Your task to perform on an android device: turn notification dots on Image 0: 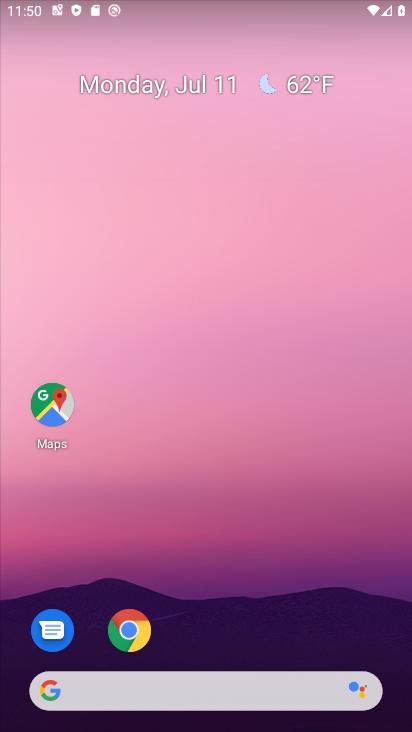
Step 0: drag from (120, 674) to (270, 0)
Your task to perform on an android device: turn notification dots on Image 1: 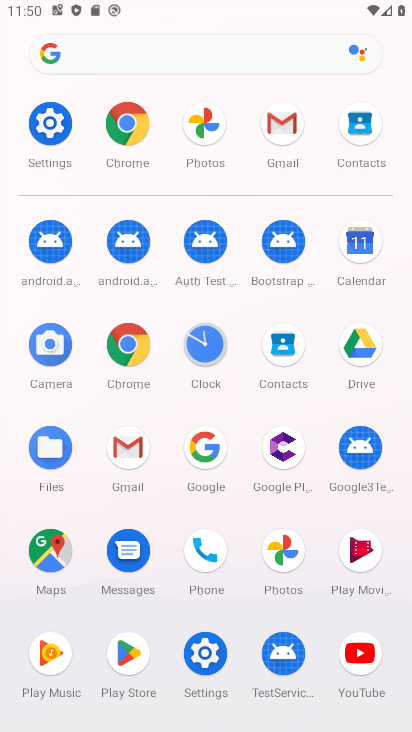
Step 1: click (55, 116)
Your task to perform on an android device: turn notification dots on Image 2: 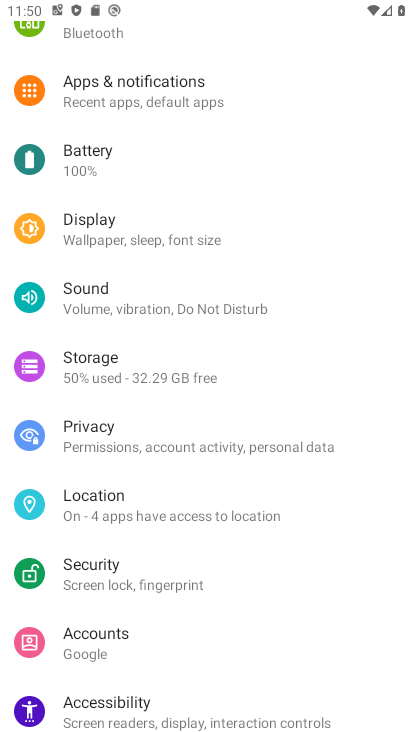
Step 2: click (135, 98)
Your task to perform on an android device: turn notification dots on Image 3: 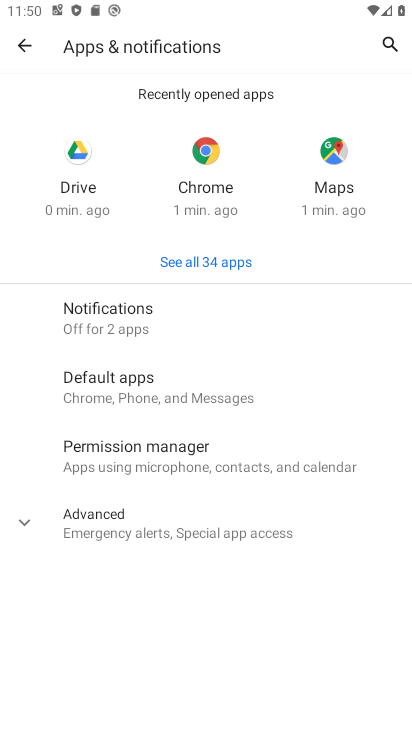
Step 3: click (155, 319)
Your task to perform on an android device: turn notification dots on Image 4: 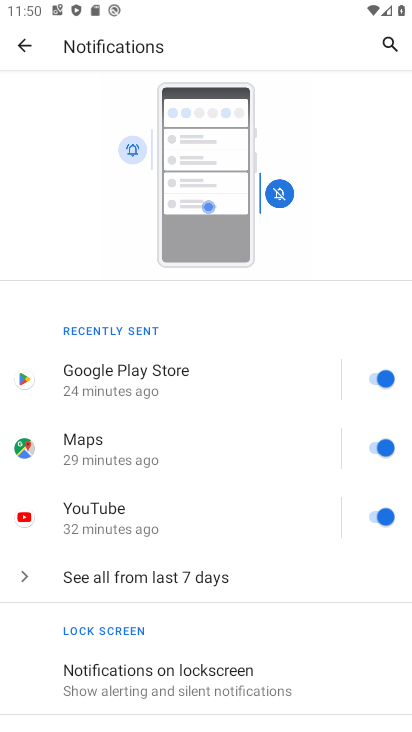
Step 4: drag from (180, 642) to (300, 90)
Your task to perform on an android device: turn notification dots on Image 5: 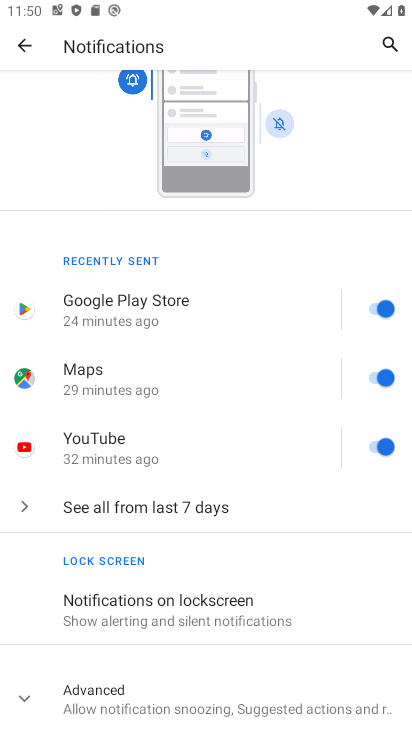
Step 5: click (159, 709)
Your task to perform on an android device: turn notification dots on Image 6: 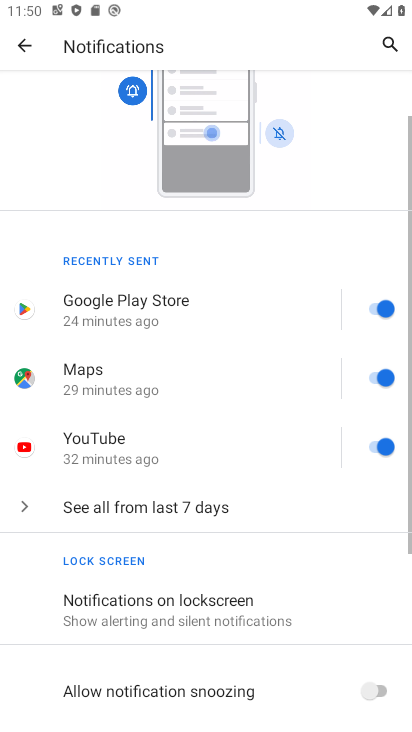
Step 6: drag from (161, 701) to (259, 162)
Your task to perform on an android device: turn notification dots on Image 7: 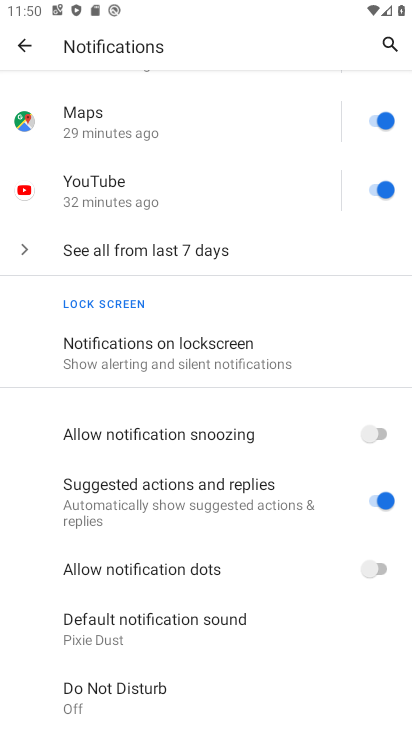
Step 7: click (381, 566)
Your task to perform on an android device: turn notification dots on Image 8: 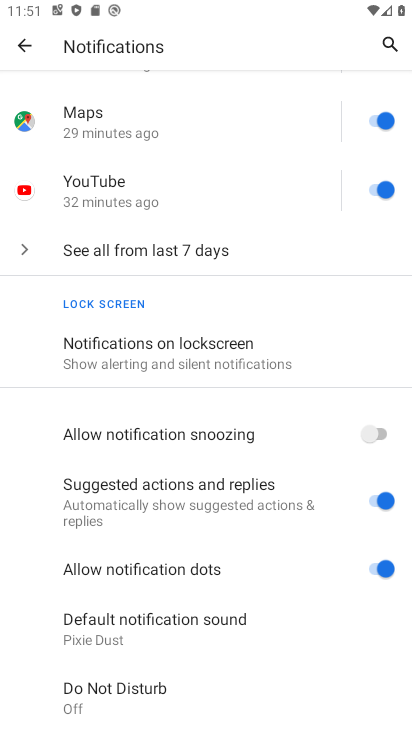
Step 8: task complete